Your task to perform on an android device: set the stopwatch Image 0: 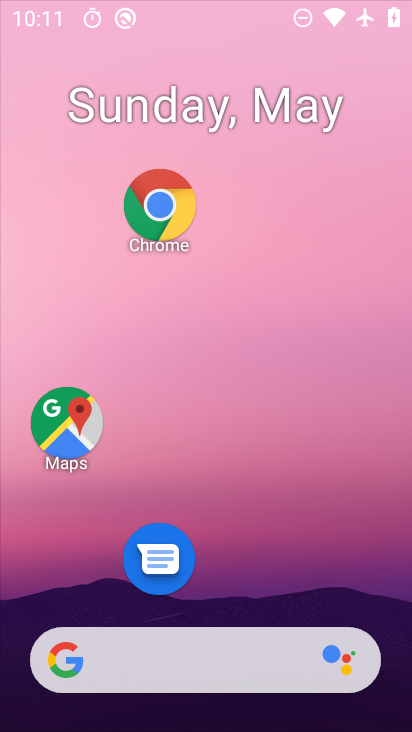
Step 0: press home button
Your task to perform on an android device: set the stopwatch Image 1: 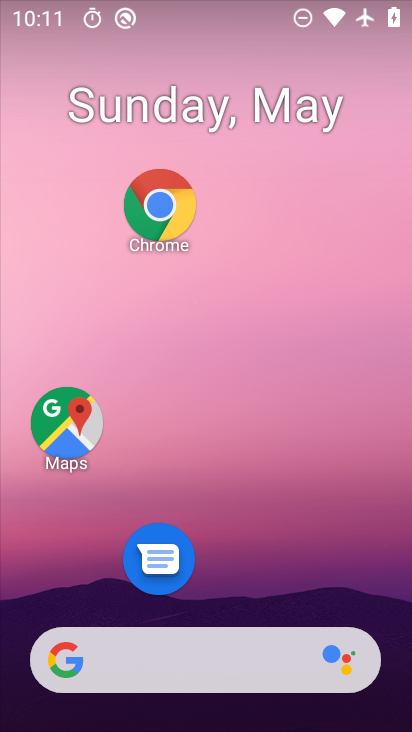
Step 1: drag from (323, 613) to (273, 93)
Your task to perform on an android device: set the stopwatch Image 2: 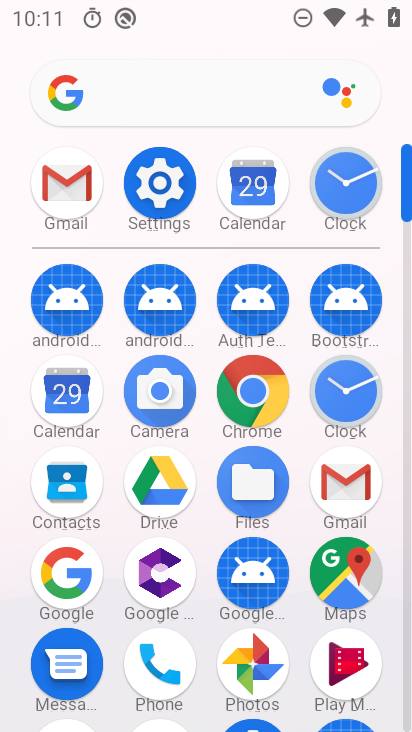
Step 2: click (364, 203)
Your task to perform on an android device: set the stopwatch Image 3: 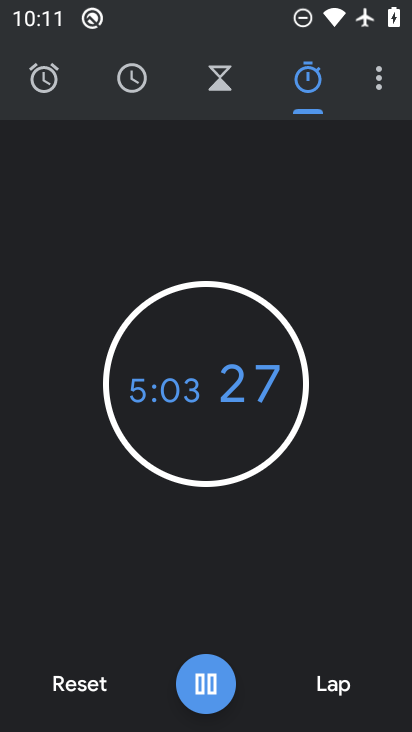
Step 3: click (86, 676)
Your task to perform on an android device: set the stopwatch Image 4: 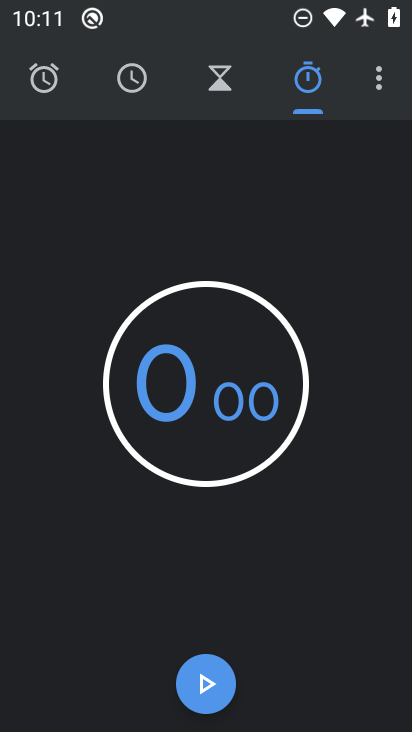
Step 4: click (199, 396)
Your task to perform on an android device: set the stopwatch Image 5: 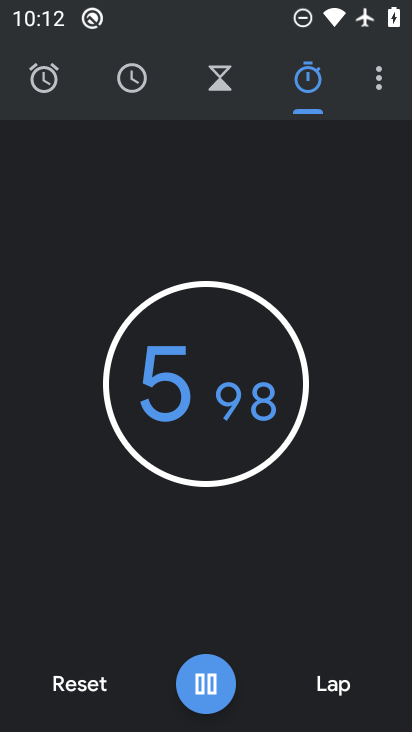
Step 5: task complete